Your task to perform on an android device: turn pop-ups on in chrome Image 0: 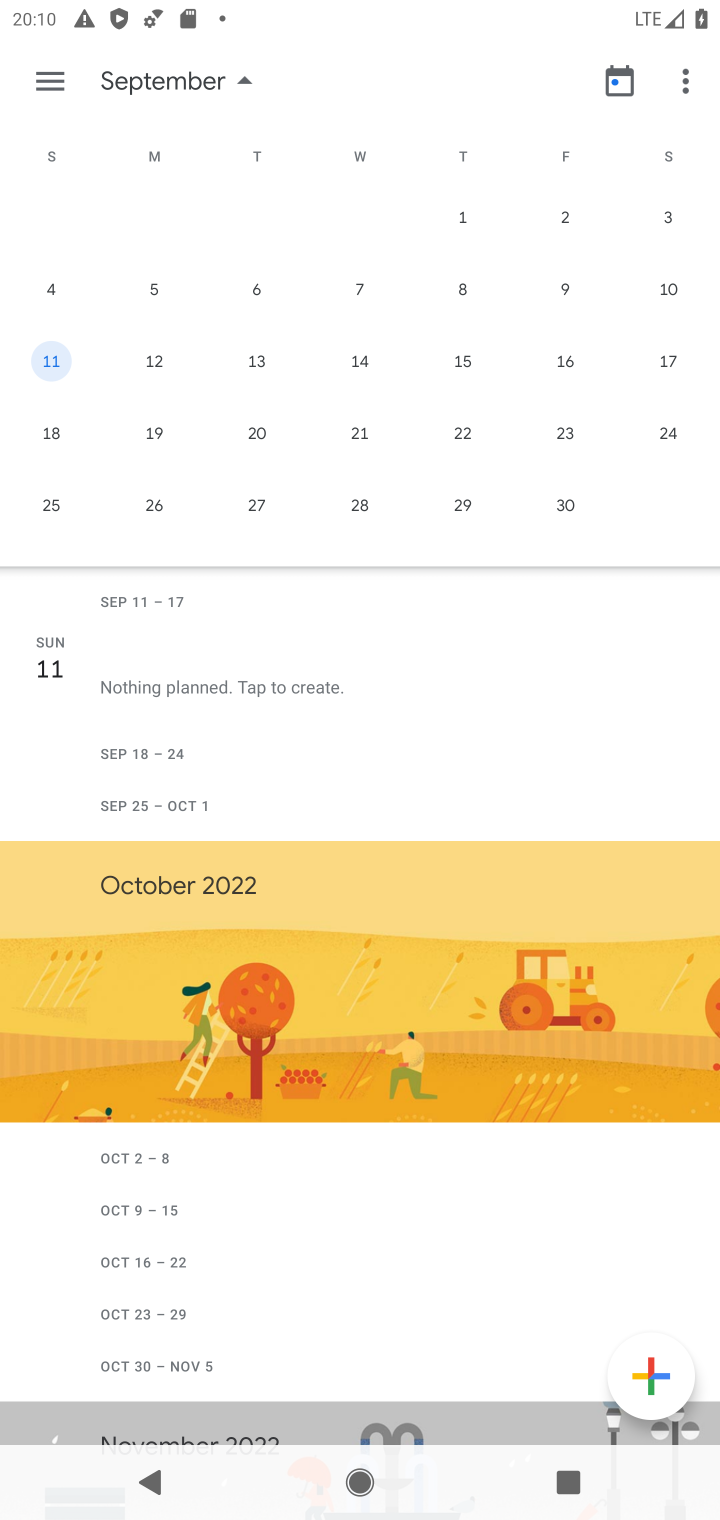
Step 0: press home button
Your task to perform on an android device: turn pop-ups on in chrome Image 1: 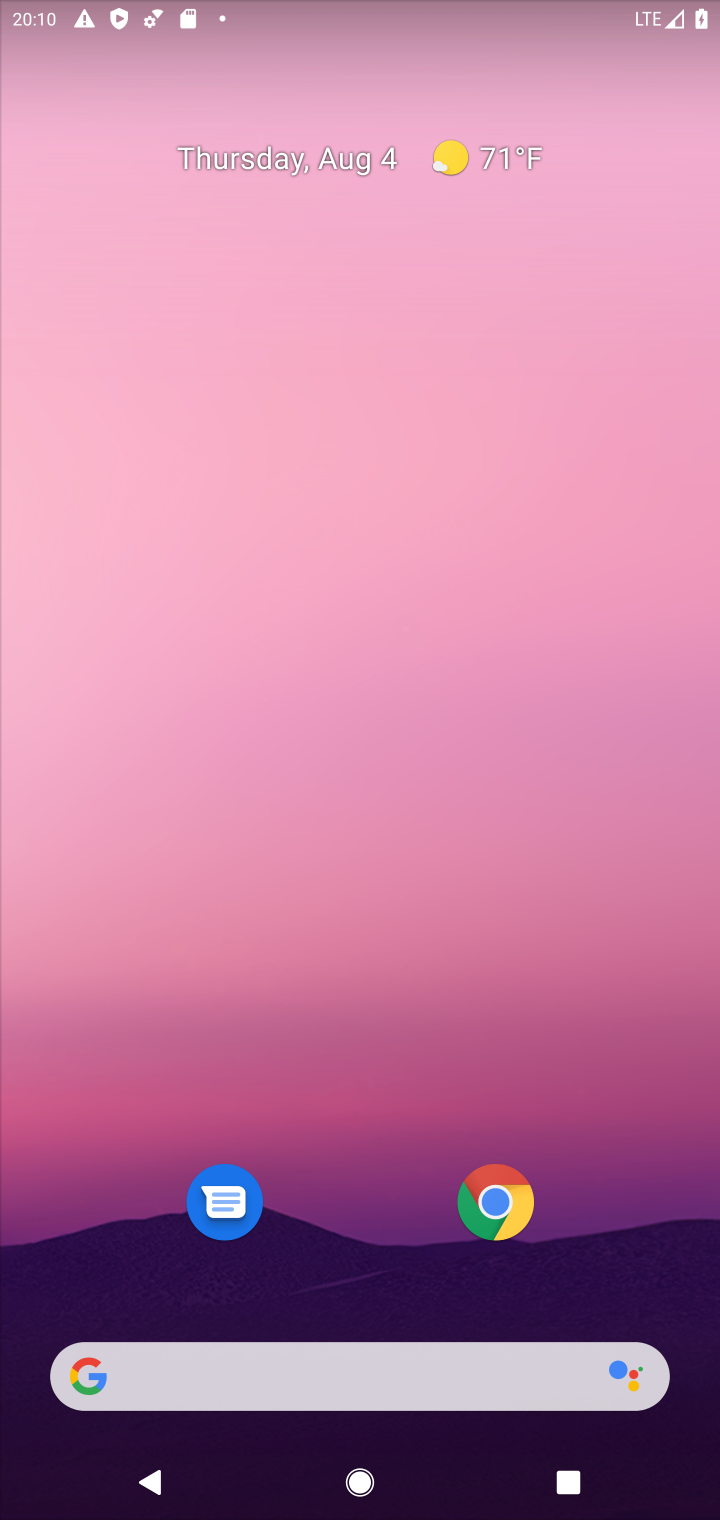
Step 1: click (505, 1162)
Your task to perform on an android device: turn pop-ups on in chrome Image 2: 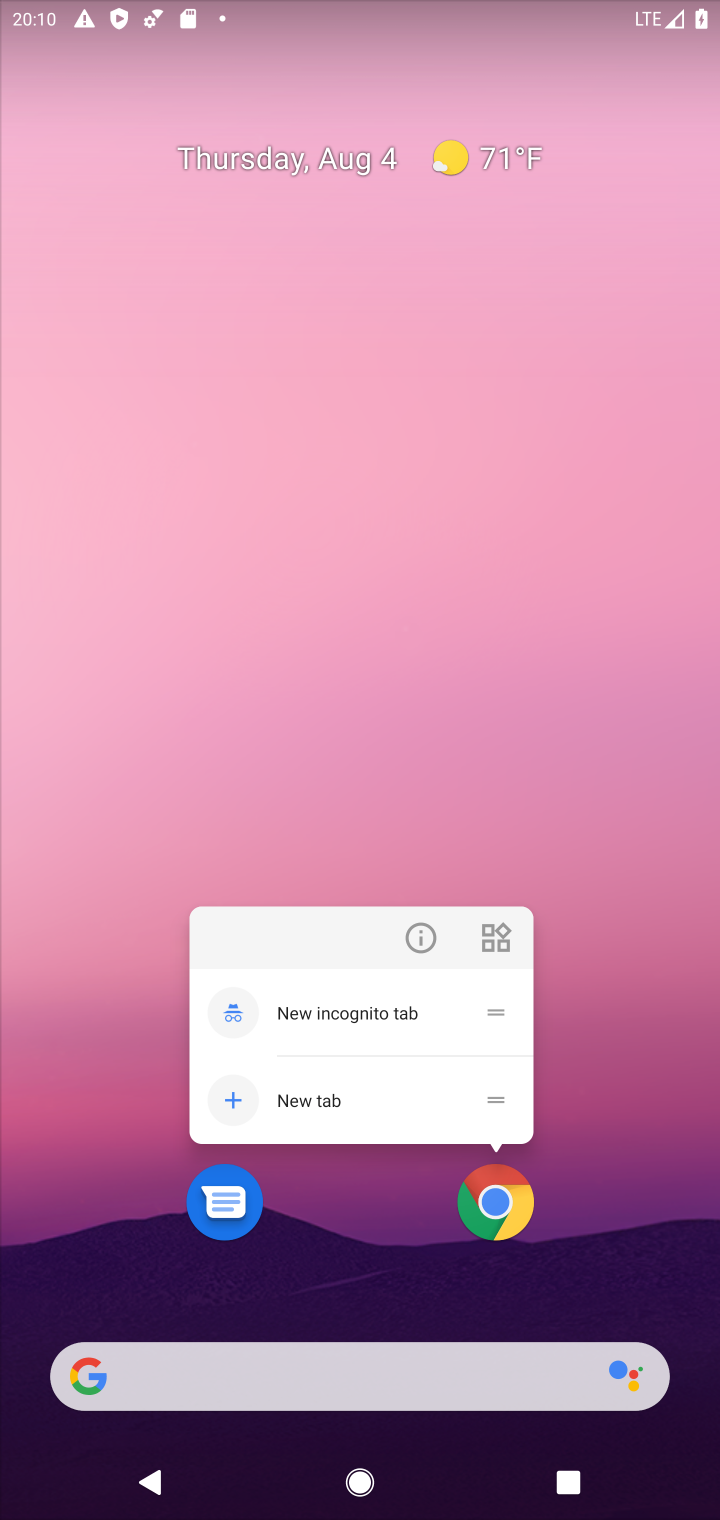
Step 2: click (474, 1197)
Your task to perform on an android device: turn pop-ups on in chrome Image 3: 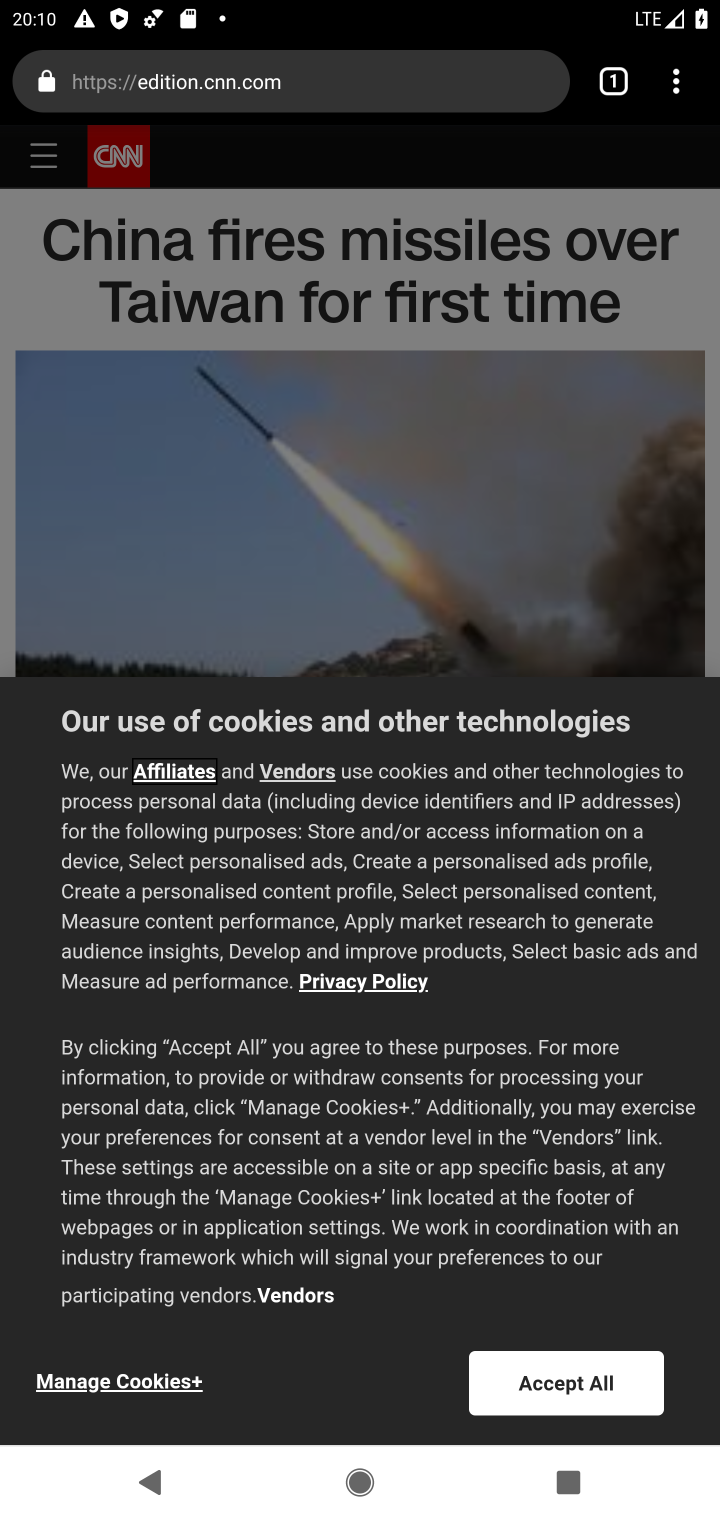
Step 3: click (678, 91)
Your task to perform on an android device: turn pop-ups on in chrome Image 4: 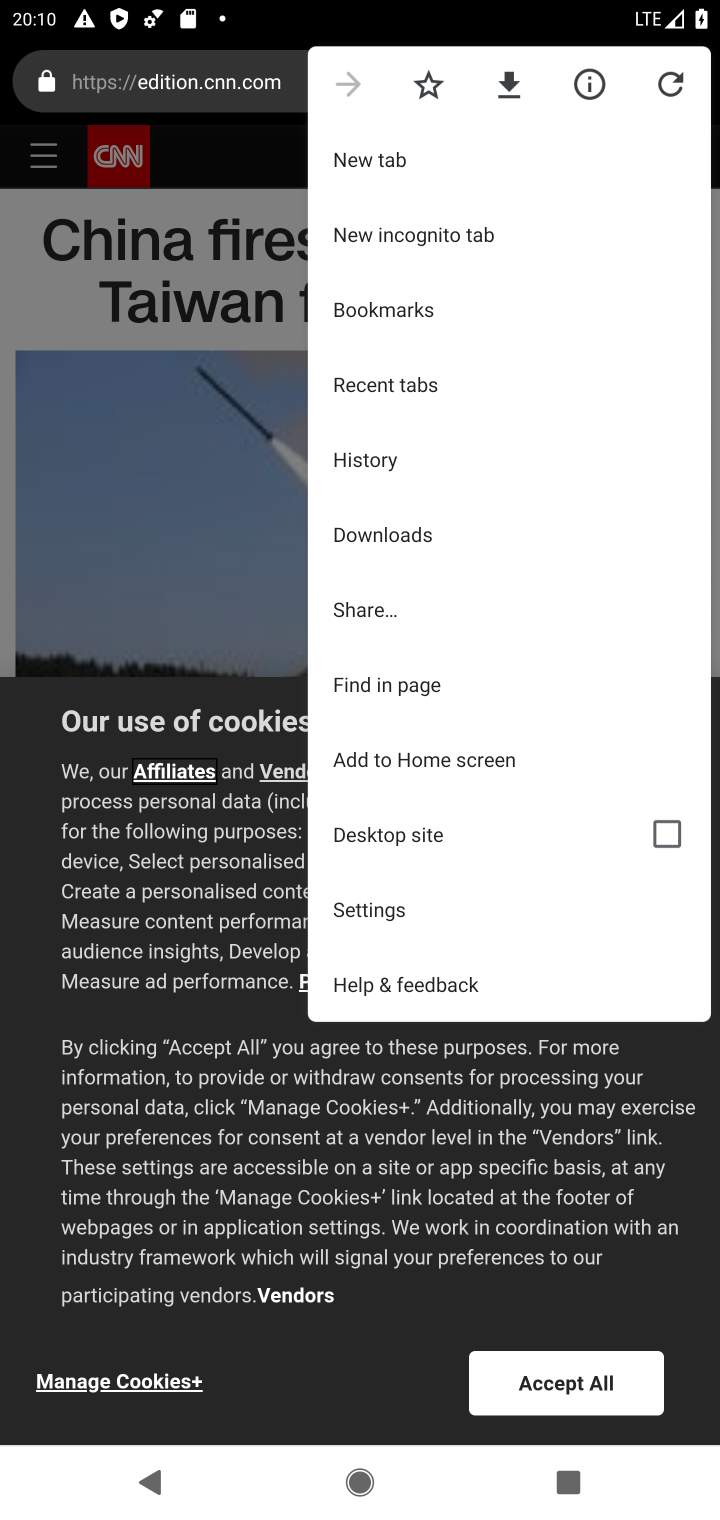
Step 4: click (457, 902)
Your task to perform on an android device: turn pop-ups on in chrome Image 5: 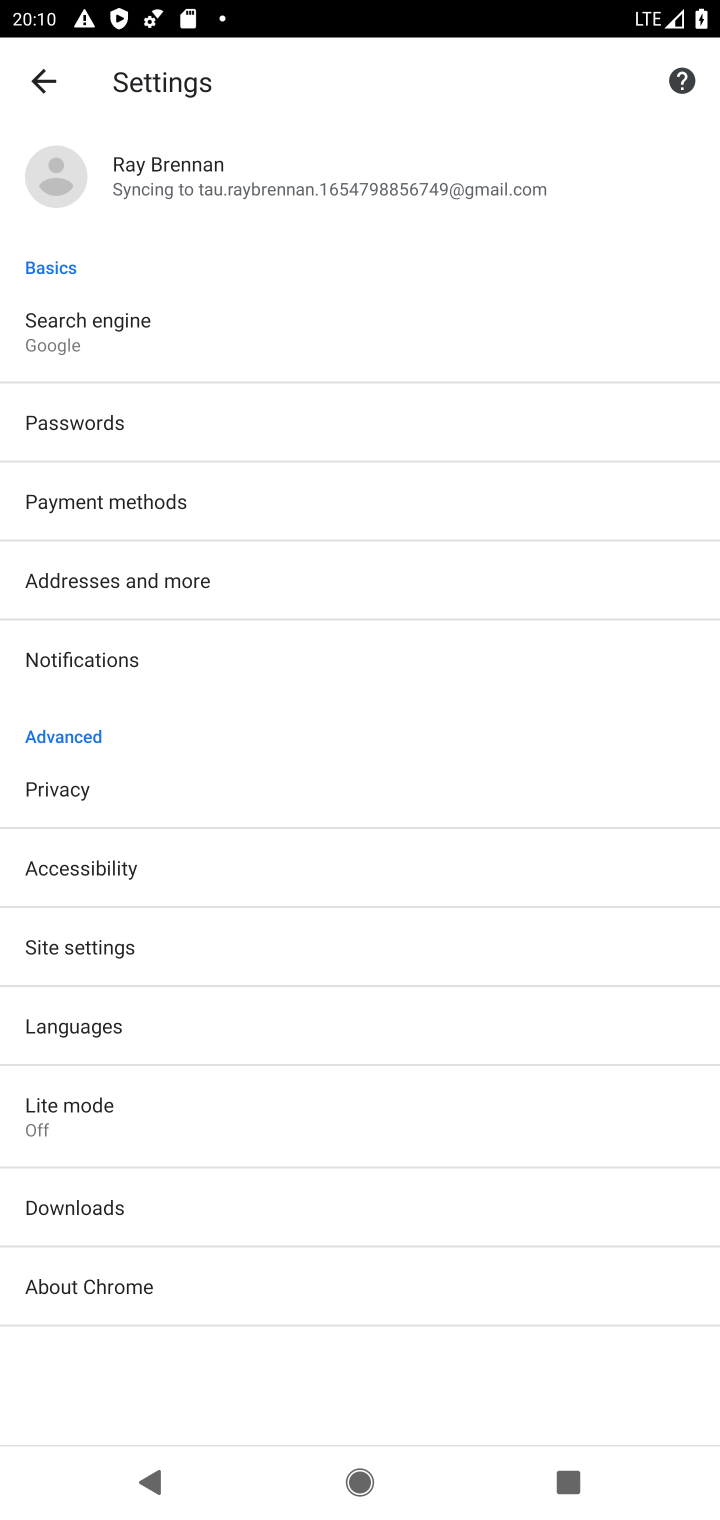
Step 5: click (198, 964)
Your task to perform on an android device: turn pop-ups on in chrome Image 6: 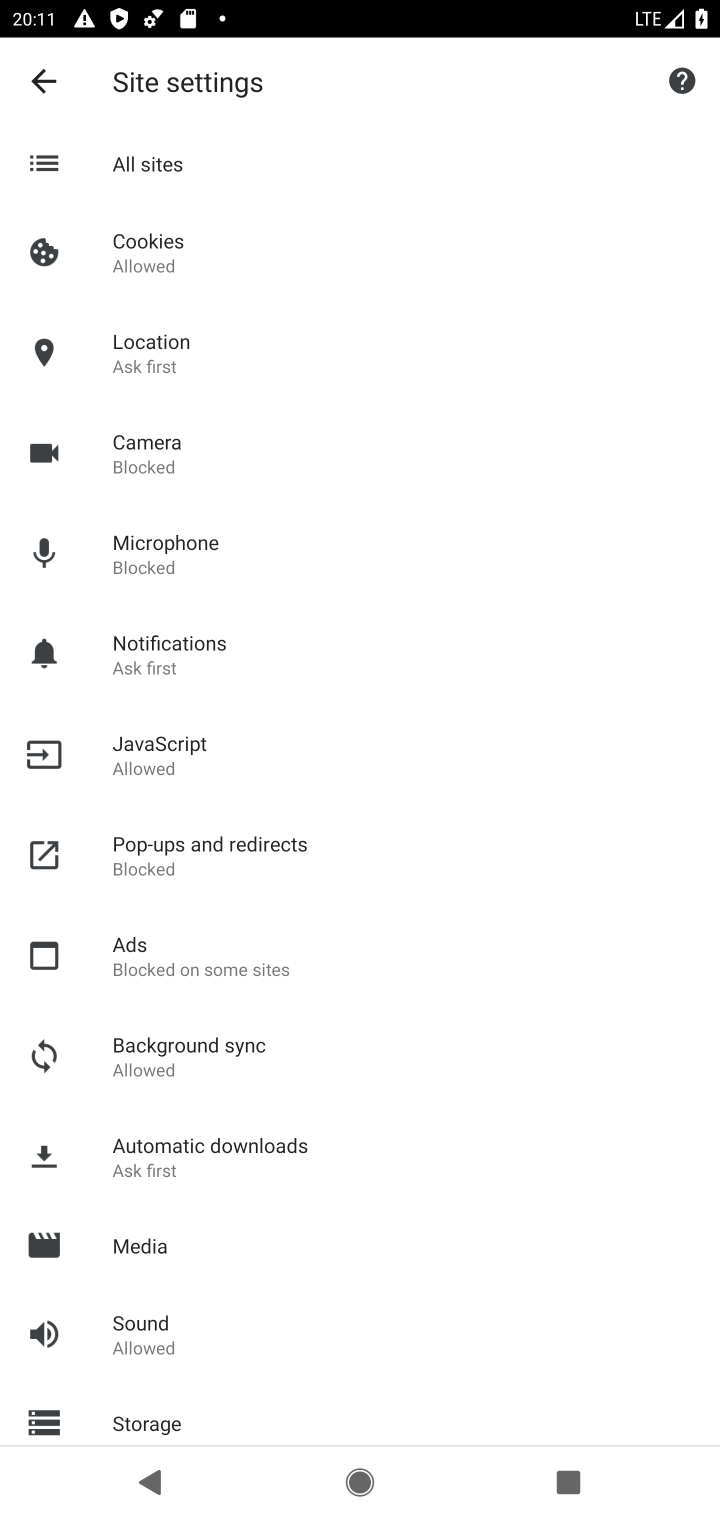
Step 6: click (282, 869)
Your task to perform on an android device: turn pop-ups on in chrome Image 7: 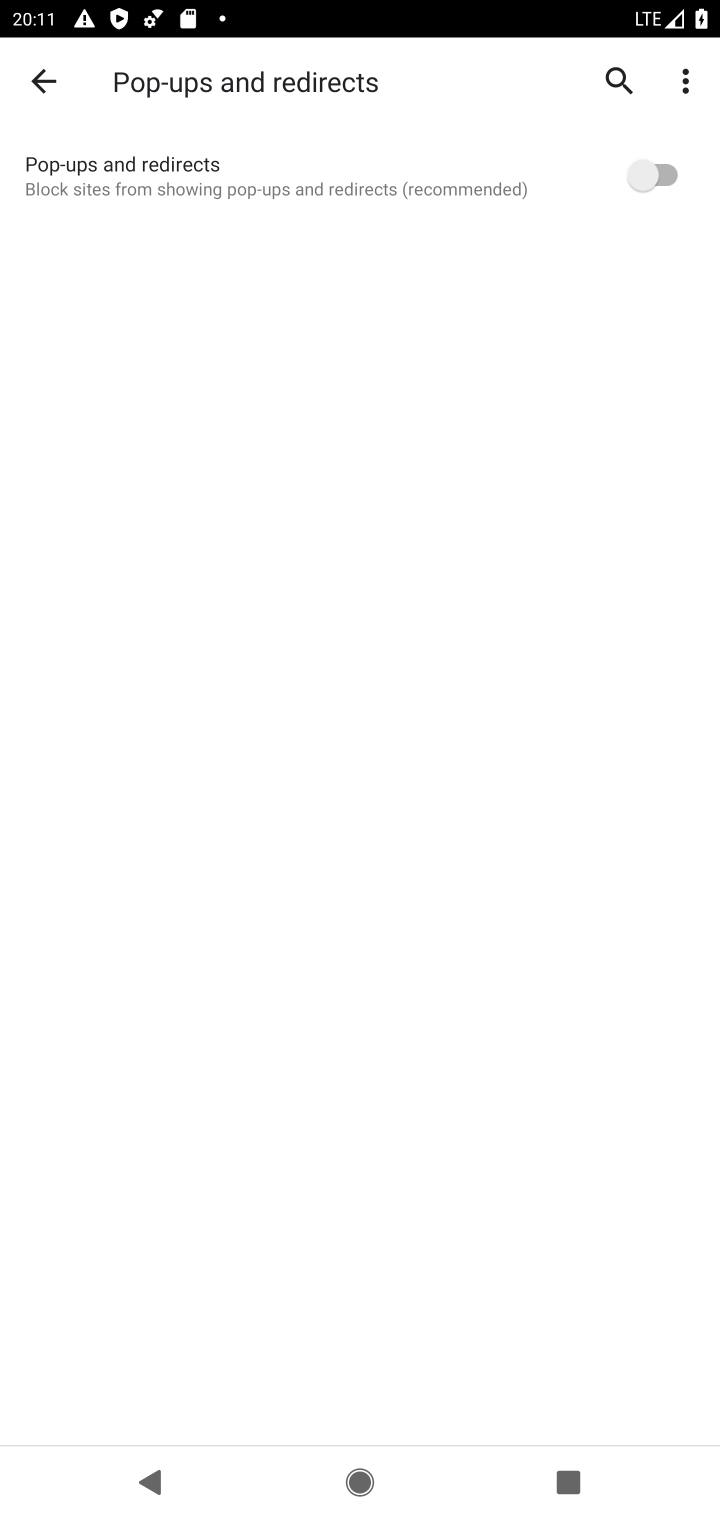
Step 7: click (703, 190)
Your task to perform on an android device: turn pop-ups on in chrome Image 8: 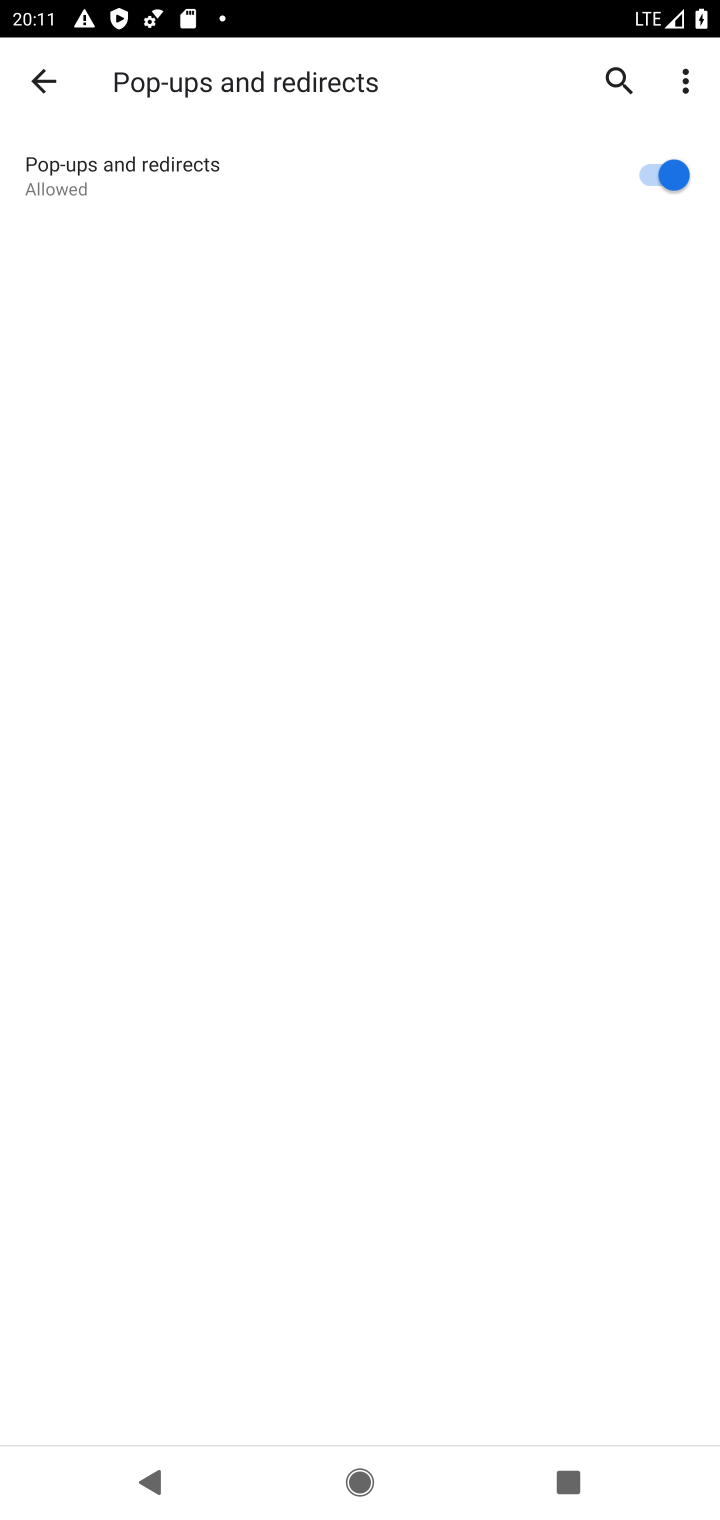
Step 8: task complete